Your task to perform on an android device: toggle show notifications on the lock screen Image 0: 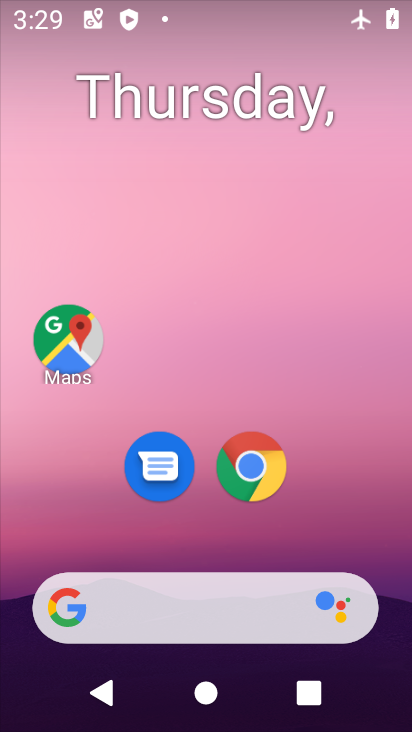
Step 0: drag from (257, 624) to (410, 495)
Your task to perform on an android device: toggle show notifications on the lock screen Image 1: 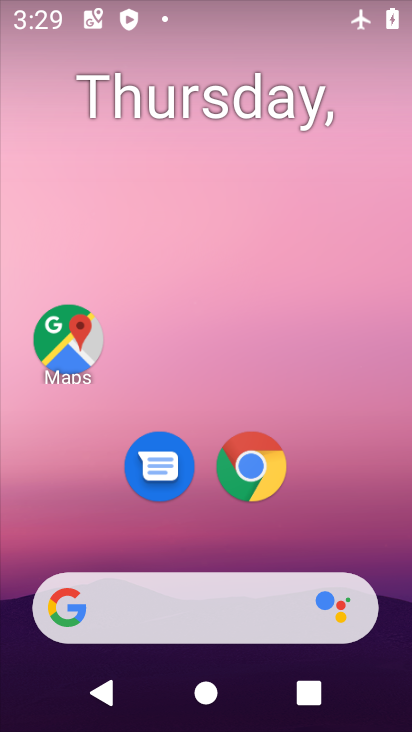
Step 1: drag from (273, 585) to (312, 144)
Your task to perform on an android device: toggle show notifications on the lock screen Image 2: 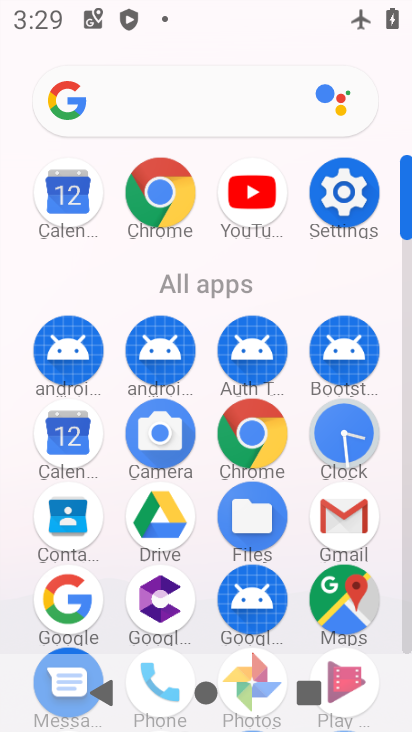
Step 2: click (353, 184)
Your task to perform on an android device: toggle show notifications on the lock screen Image 3: 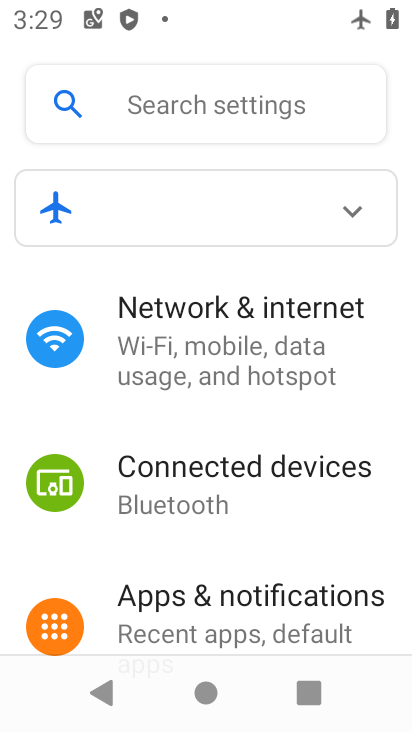
Step 3: click (178, 629)
Your task to perform on an android device: toggle show notifications on the lock screen Image 4: 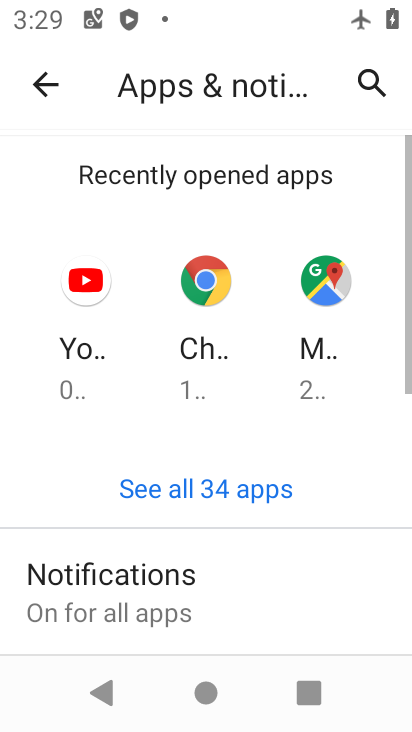
Step 4: drag from (228, 610) to (270, 62)
Your task to perform on an android device: toggle show notifications on the lock screen Image 5: 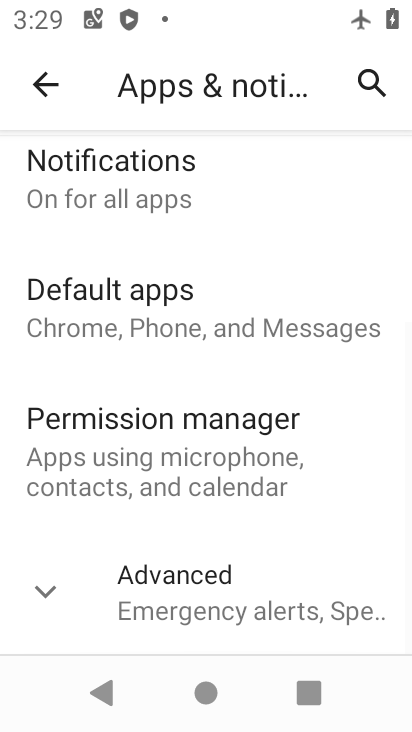
Step 5: drag from (270, 602) to (274, 356)
Your task to perform on an android device: toggle show notifications on the lock screen Image 6: 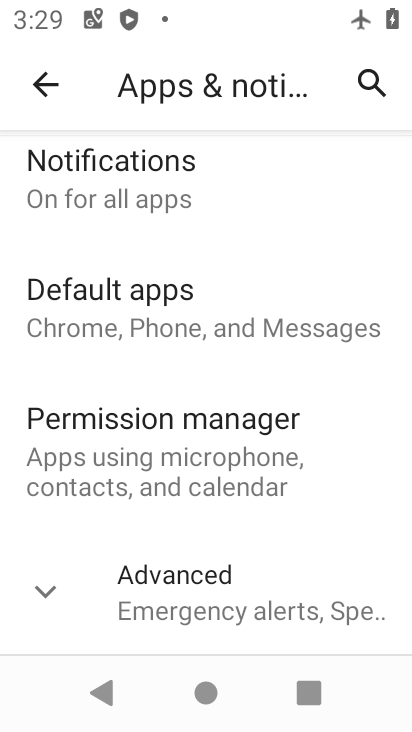
Step 6: click (295, 603)
Your task to perform on an android device: toggle show notifications on the lock screen Image 7: 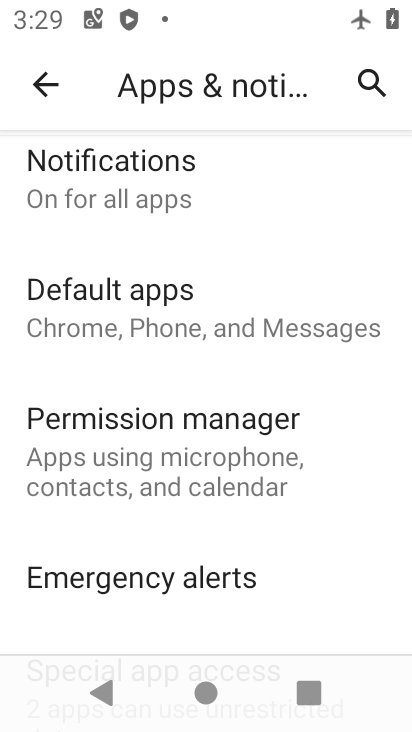
Step 7: click (193, 183)
Your task to perform on an android device: toggle show notifications on the lock screen Image 8: 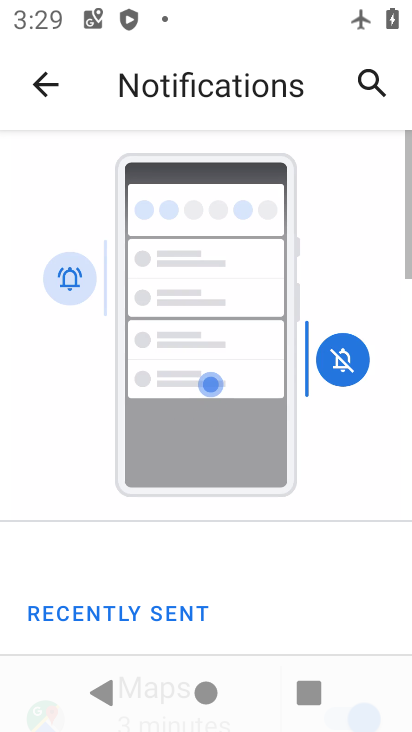
Step 8: drag from (270, 603) to (285, 4)
Your task to perform on an android device: toggle show notifications on the lock screen Image 9: 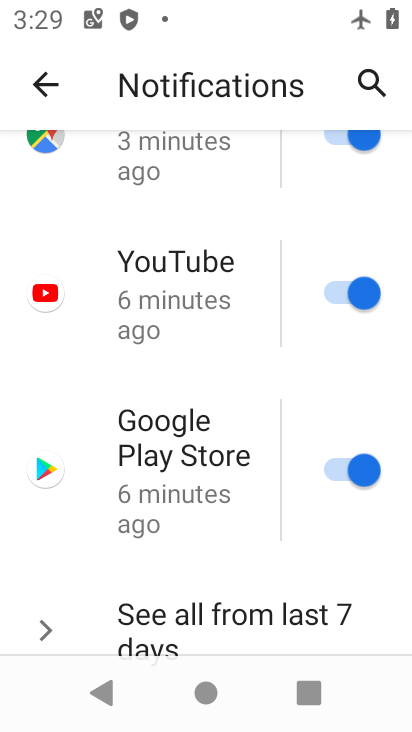
Step 9: drag from (292, 614) to (304, 100)
Your task to perform on an android device: toggle show notifications on the lock screen Image 10: 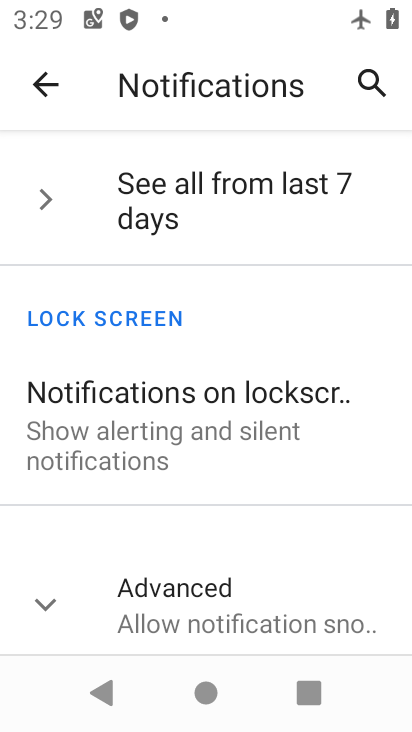
Step 10: click (293, 415)
Your task to perform on an android device: toggle show notifications on the lock screen Image 11: 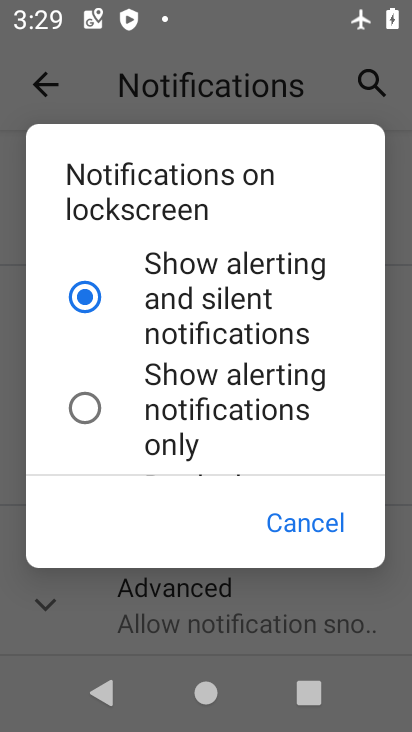
Step 11: click (85, 422)
Your task to perform on an android device: toggle show notifications on the lock screen Image 12: 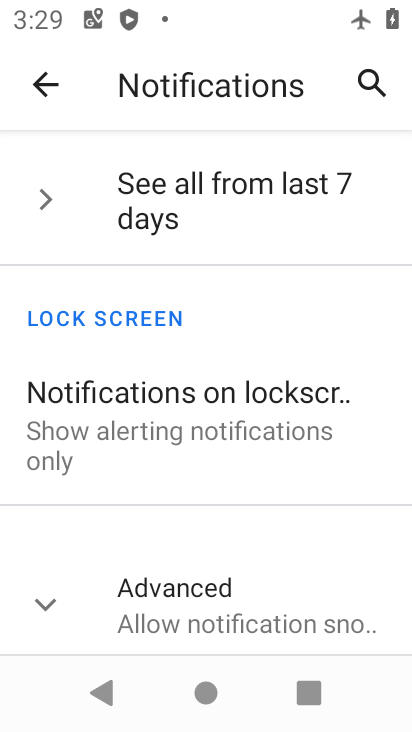
Step 12: task complete